Your task to perform on an android device: add a label to a message in the gmail app Image 0: 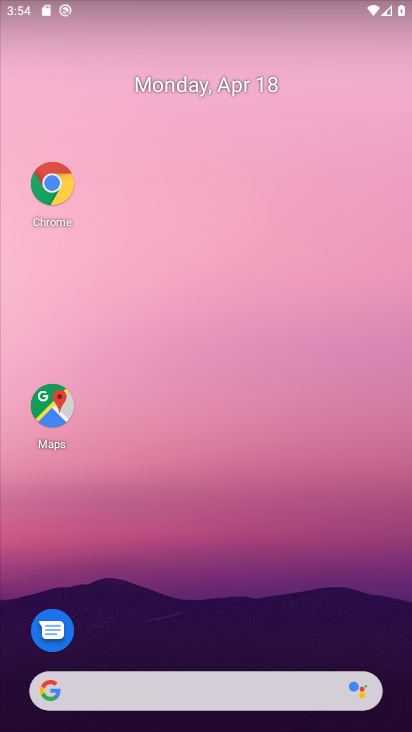
Step 0: drag from (298, 629) to (218, 70)
Your task to perform on an android device: add a label to a message in the gmail app Image 1: 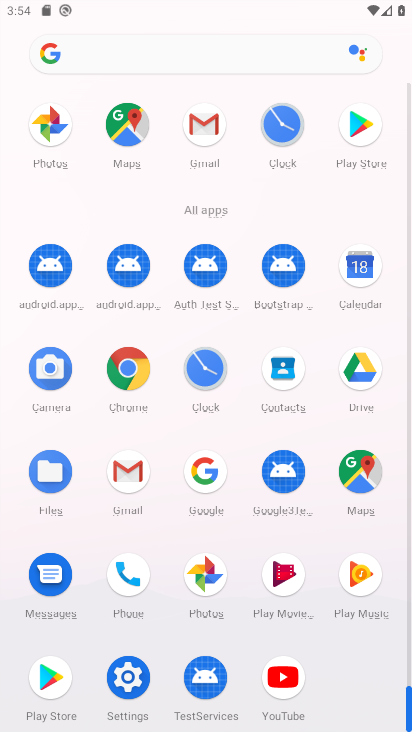
Step 1: click (138, 455)
Your task to perform on an android device: add a label to a message in the gmail app Image 2: 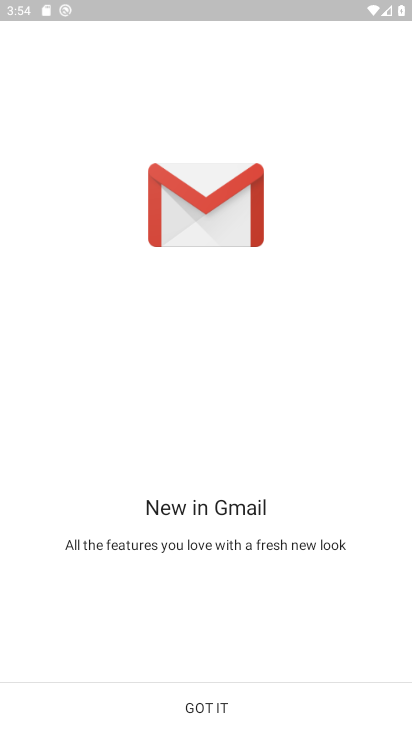
Step 2: click (206, 700)
Your task to perform on an android device: add a label to a message in the gmail app Image 3: 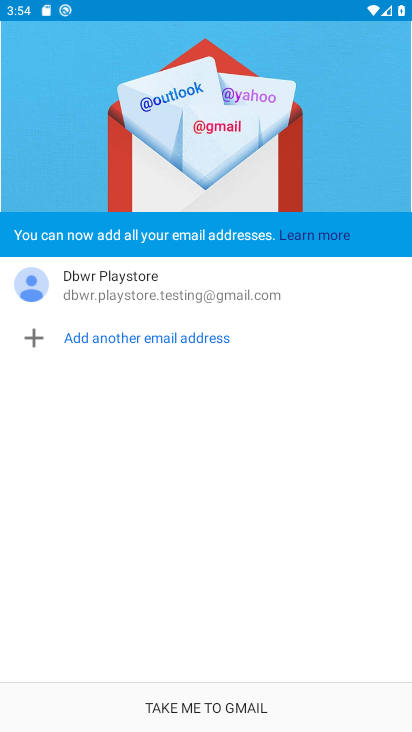
Step 3: click (206, 700)
Your task to perform on an android device: add a label to a message in the gmail app Image 4: 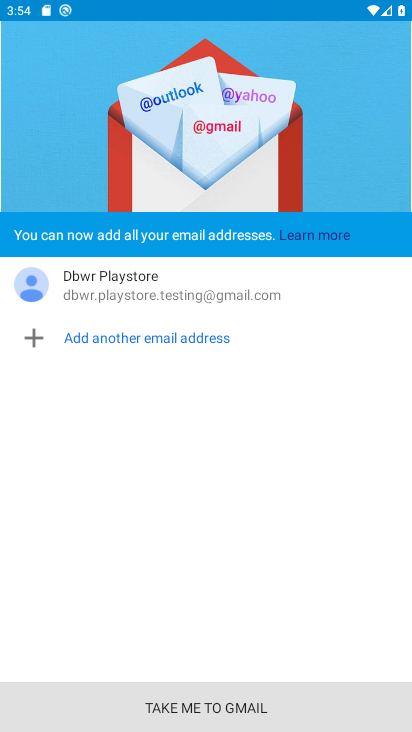
Step 4: click (206, 700)
Your task to perform on an android device: add a label to a message in the gmail app Image 5: 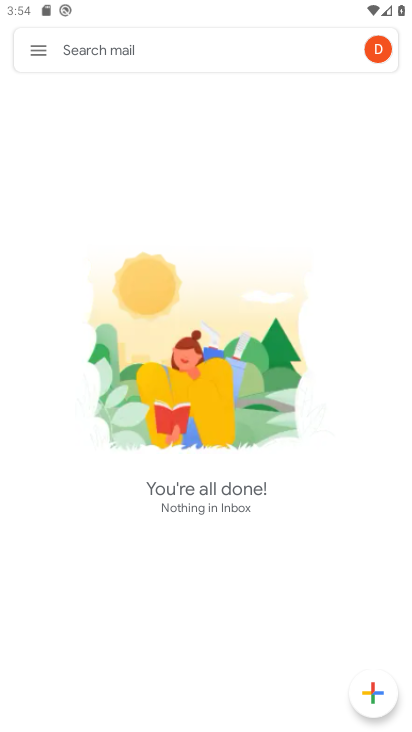
Step 5: click (42, 50)
Your task to perform on an android device: add a label to a message in the gmail app Image 6: 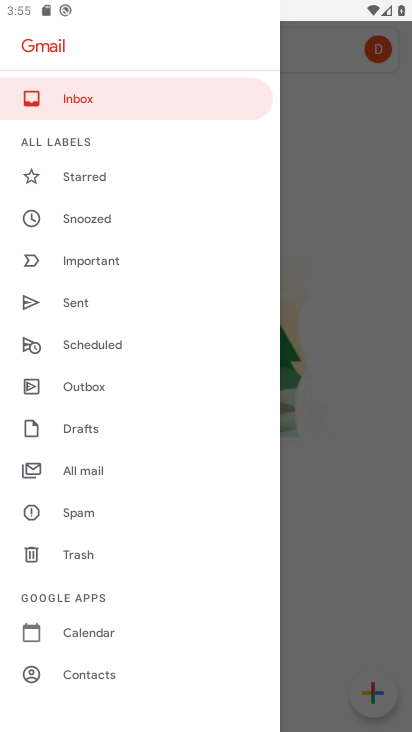
Step 6: click (76, 462)
Your task to perform on an android device: add a label to a message in the gmail app Image 7: 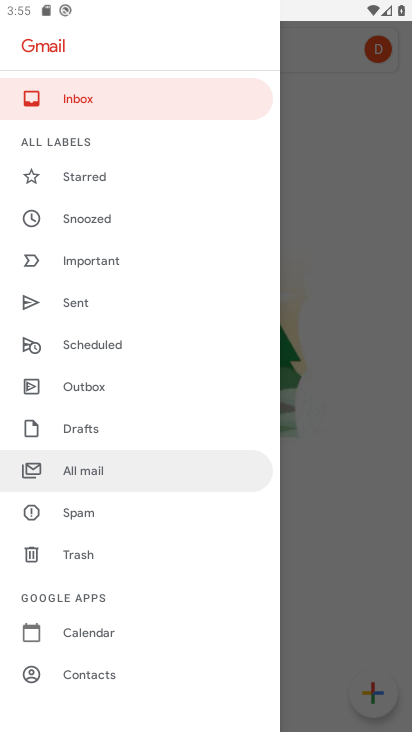
Step 7: click (76, 462)
Your task to perform on an android device: add a label to a message in the gmail app Image 8: 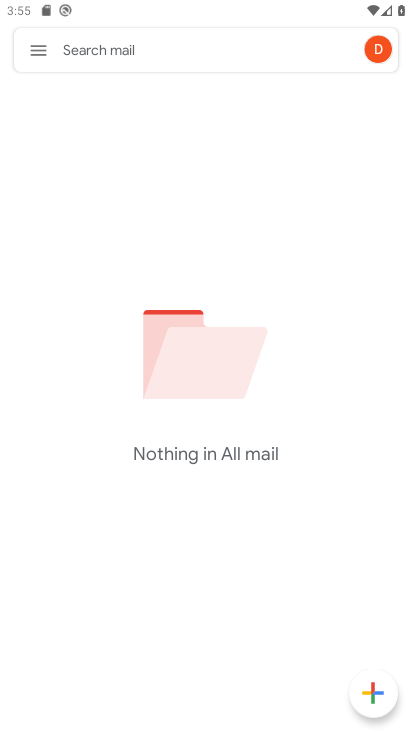
Step 8: click (43, 56)
Your task to perform on an android device: add a label to a message in the gmail app Image 9: 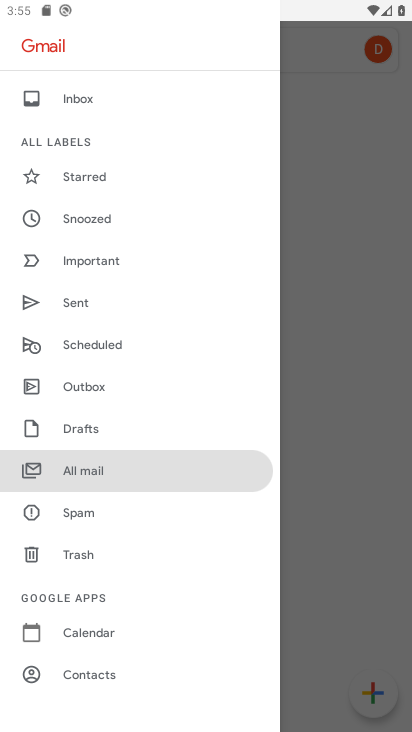
Step 9: task complete